Your task to perform on an android device: open app "Microsoft Excel" (install if not already installed) Image 0: 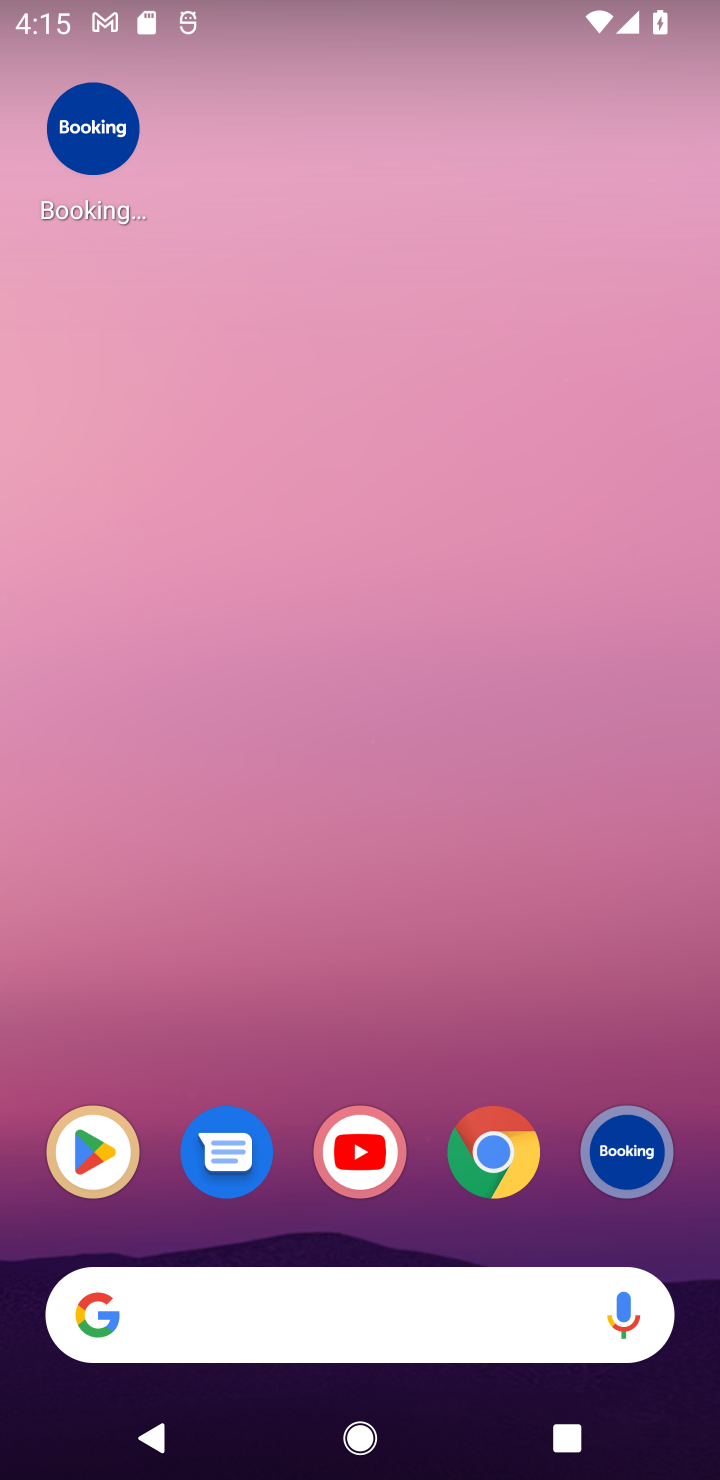
Step 0: click (83, 1143)
Your task to perform on an android device: open app "Microsoft Excel" (install if not already installed) Image 1: 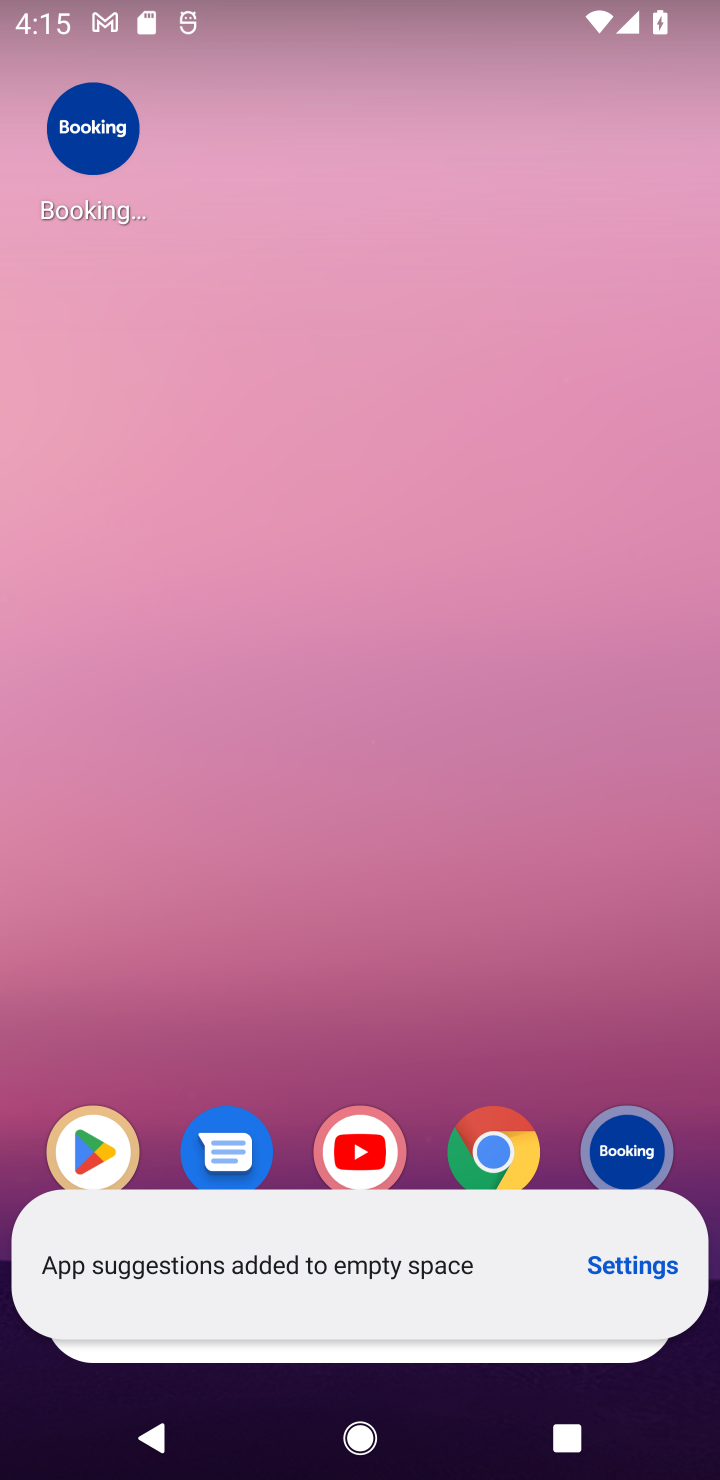
Step 1: click (85, 1135)
Your task to perform on an android device: open app "Microsoft Excel" (install if not already installed) Image 2: 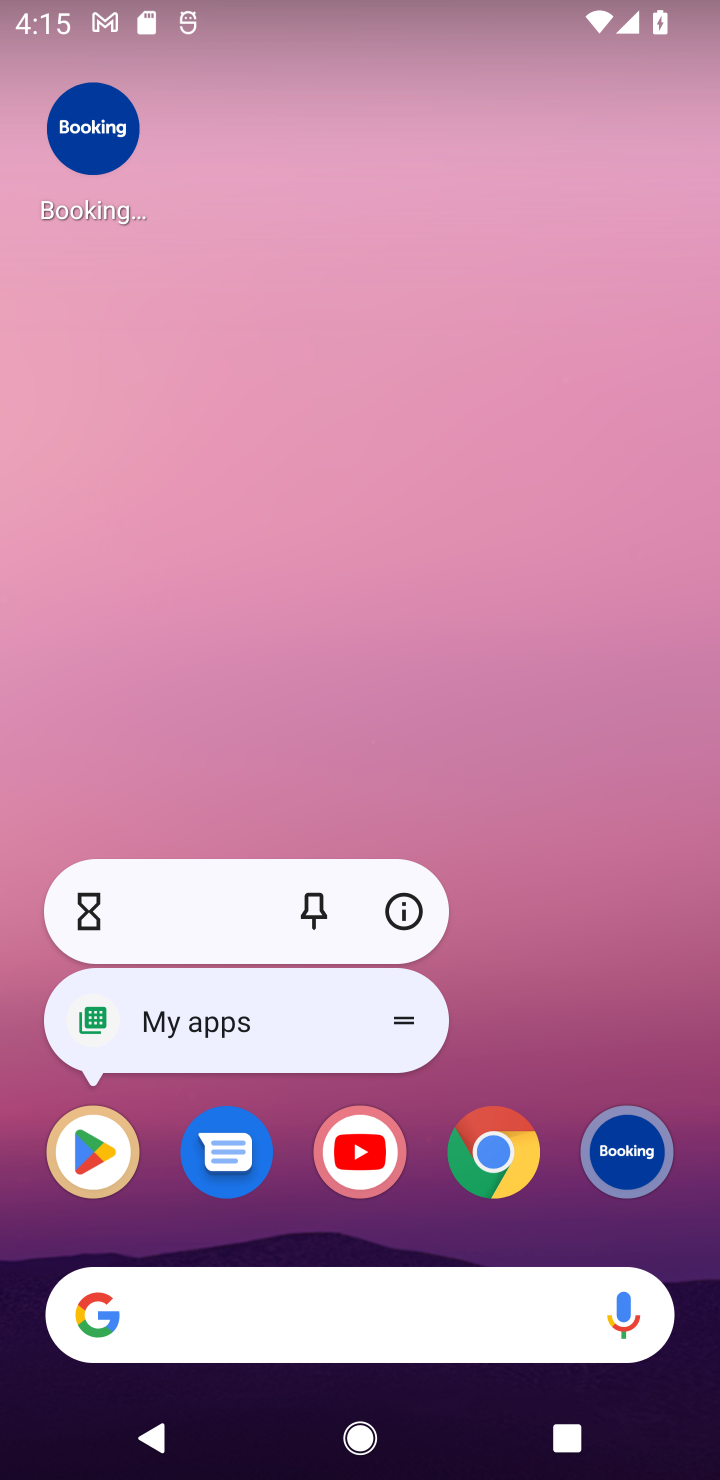
Step 2: click (105, 1195)
Your task to perform on an android device: open app "Microsoft Excel" (install if not already installed) Image 3: 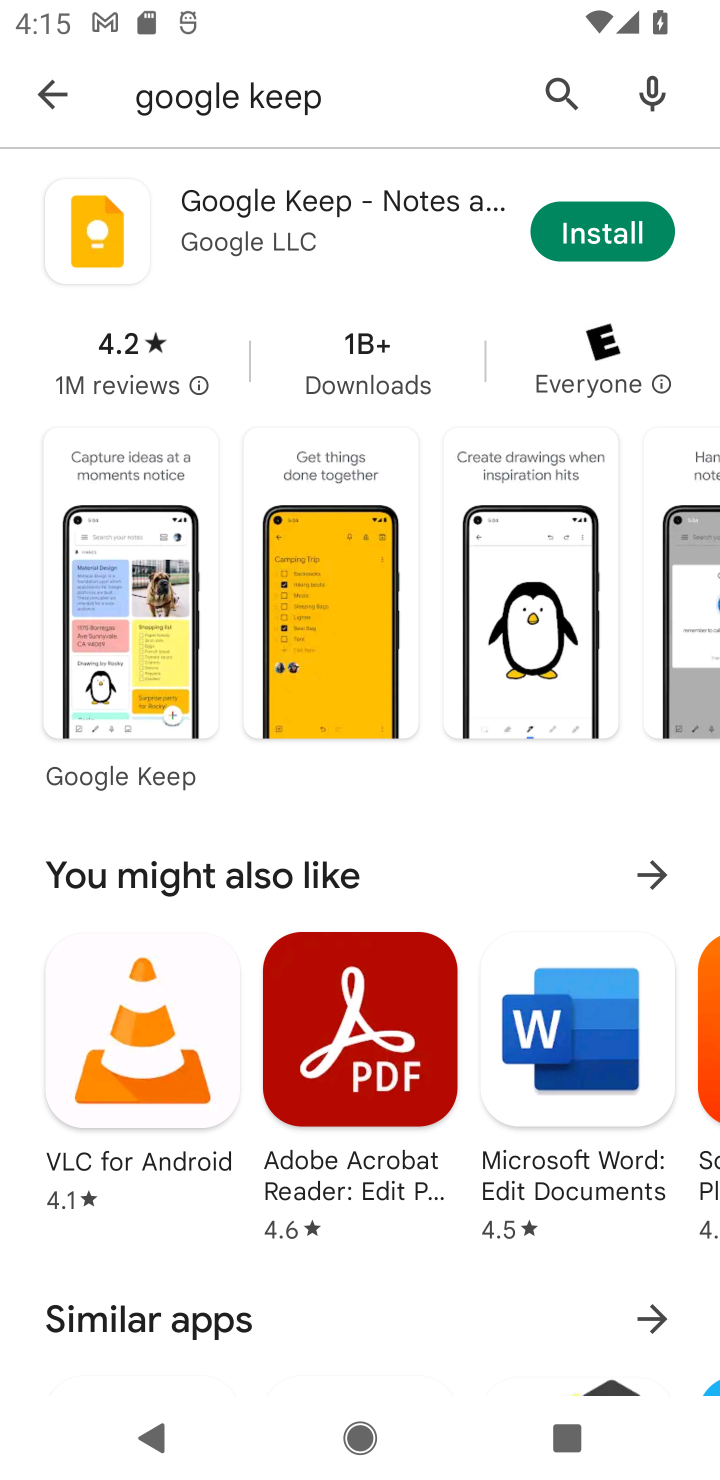
Step 3: click (41, 94)
Your task to perform on an android device: open app "Microsoft Excel" (install if not already installed) Image 4: 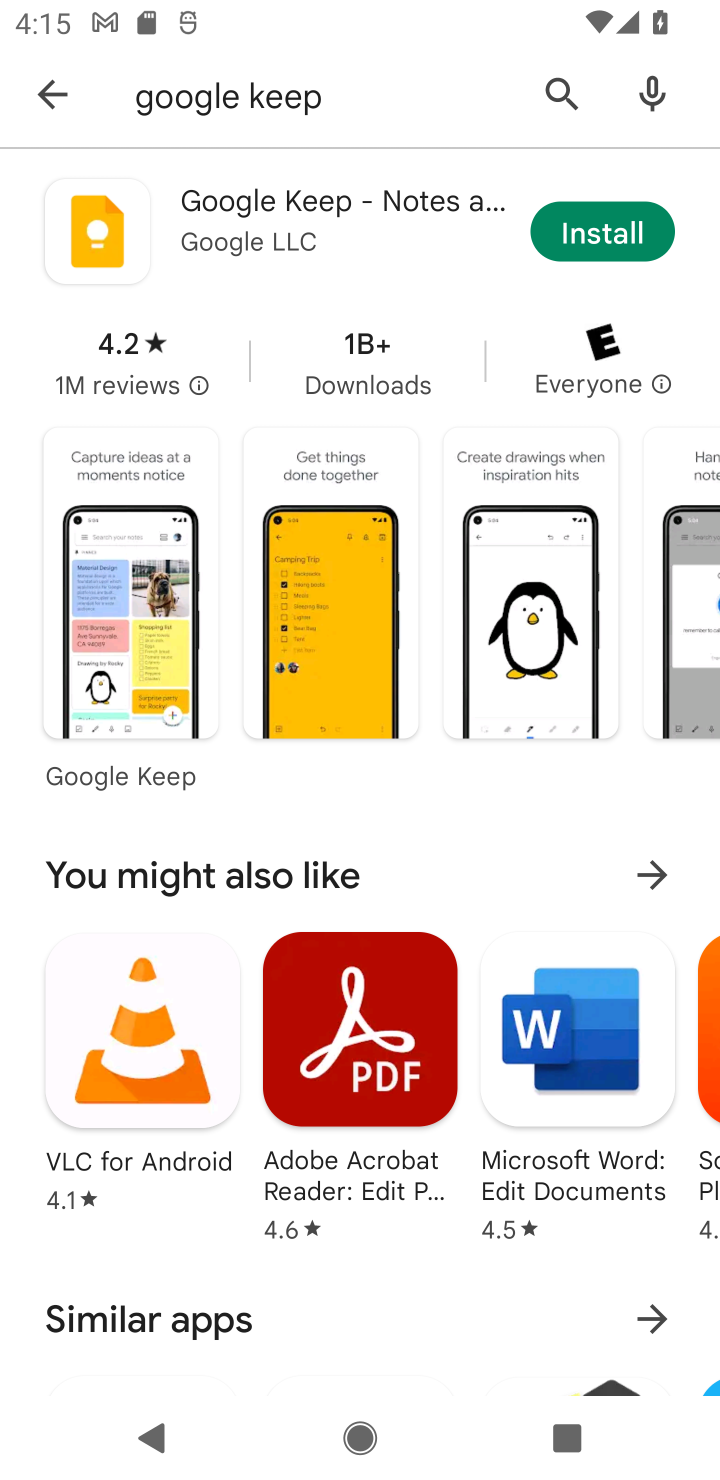
Step 4: click (42, 87)
Your task to perform on an android device: open app "Microsoft Excel" (install if not already installed) Image 5: 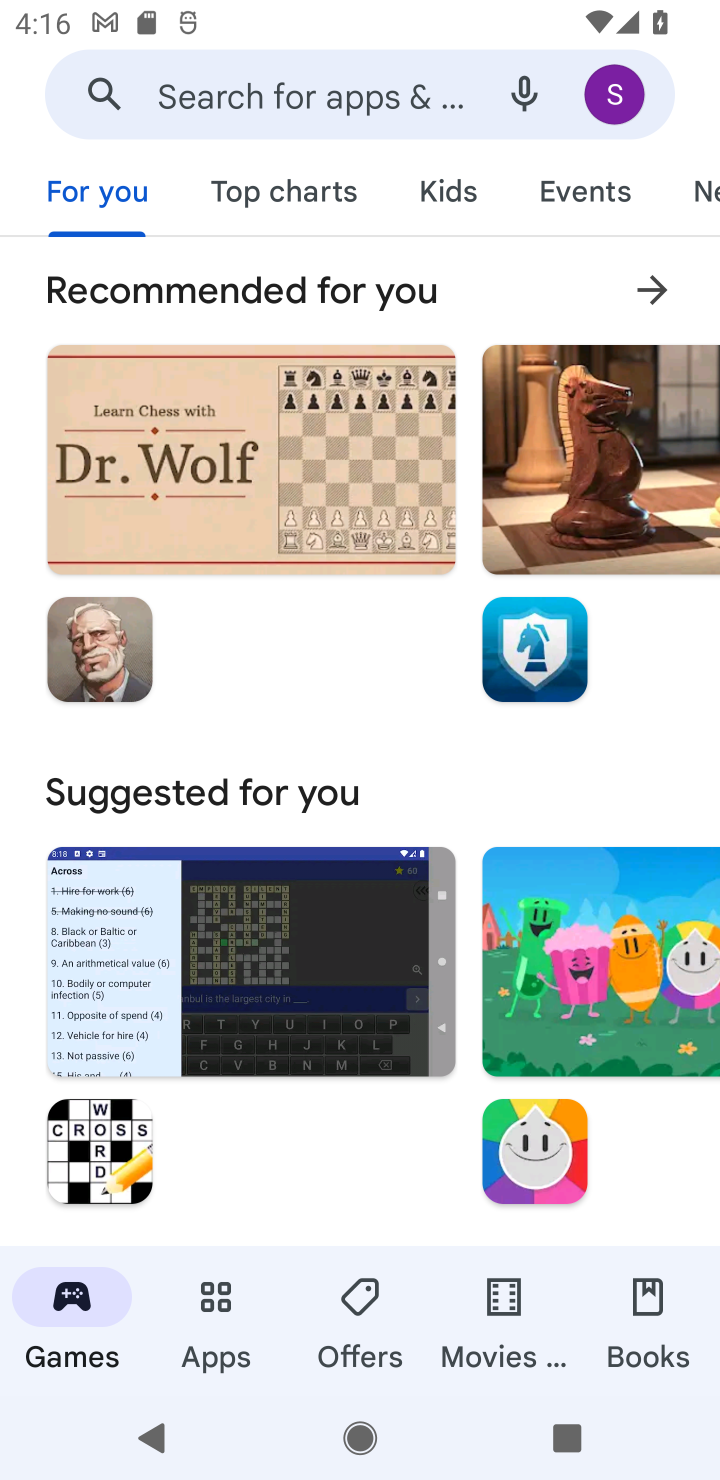
Step 5: click (214, 79)
Your task to perform on an android device: open app "Microsoft Excel" (install if not already installed) Image 6: 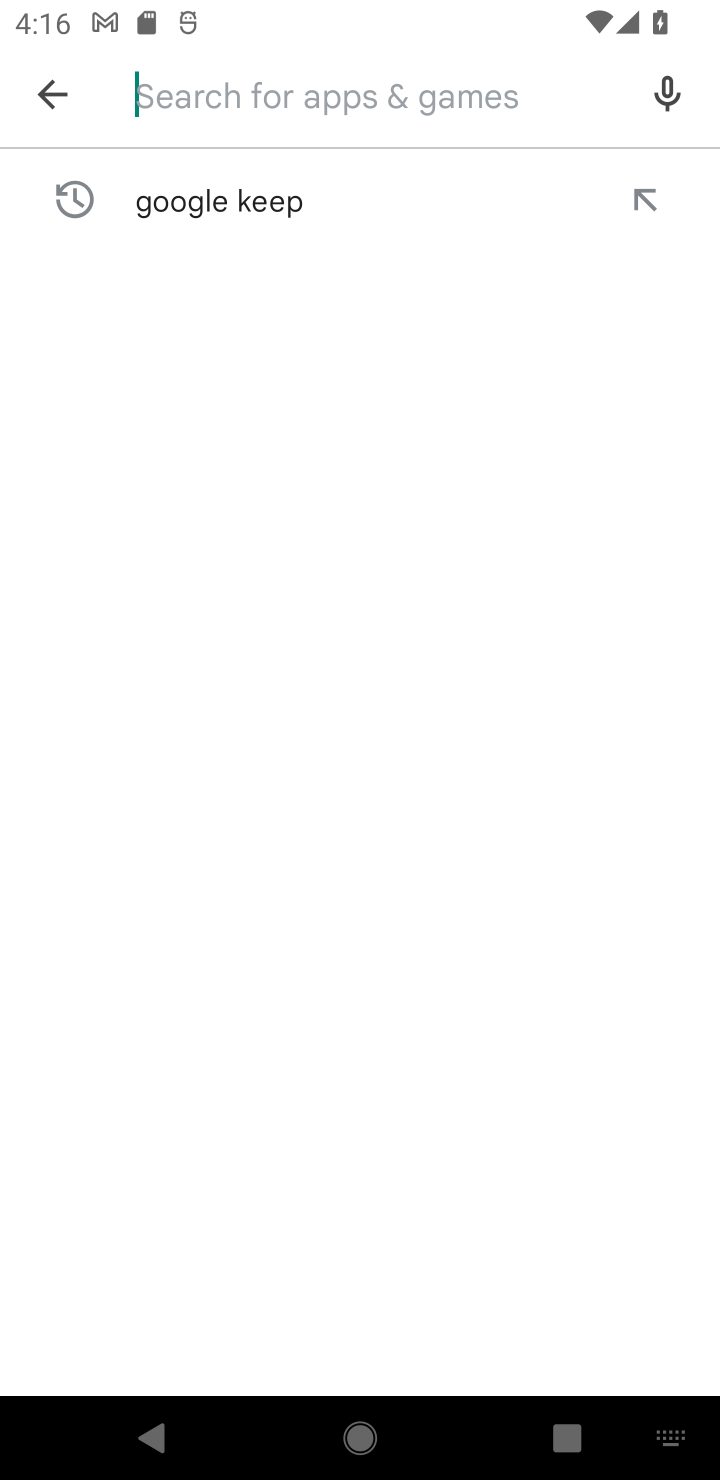
Step 6: type "Microsoft Excel"
Your task to perform on an android device: open app "Microsoft Excel" (install if not already installed) Image 7: 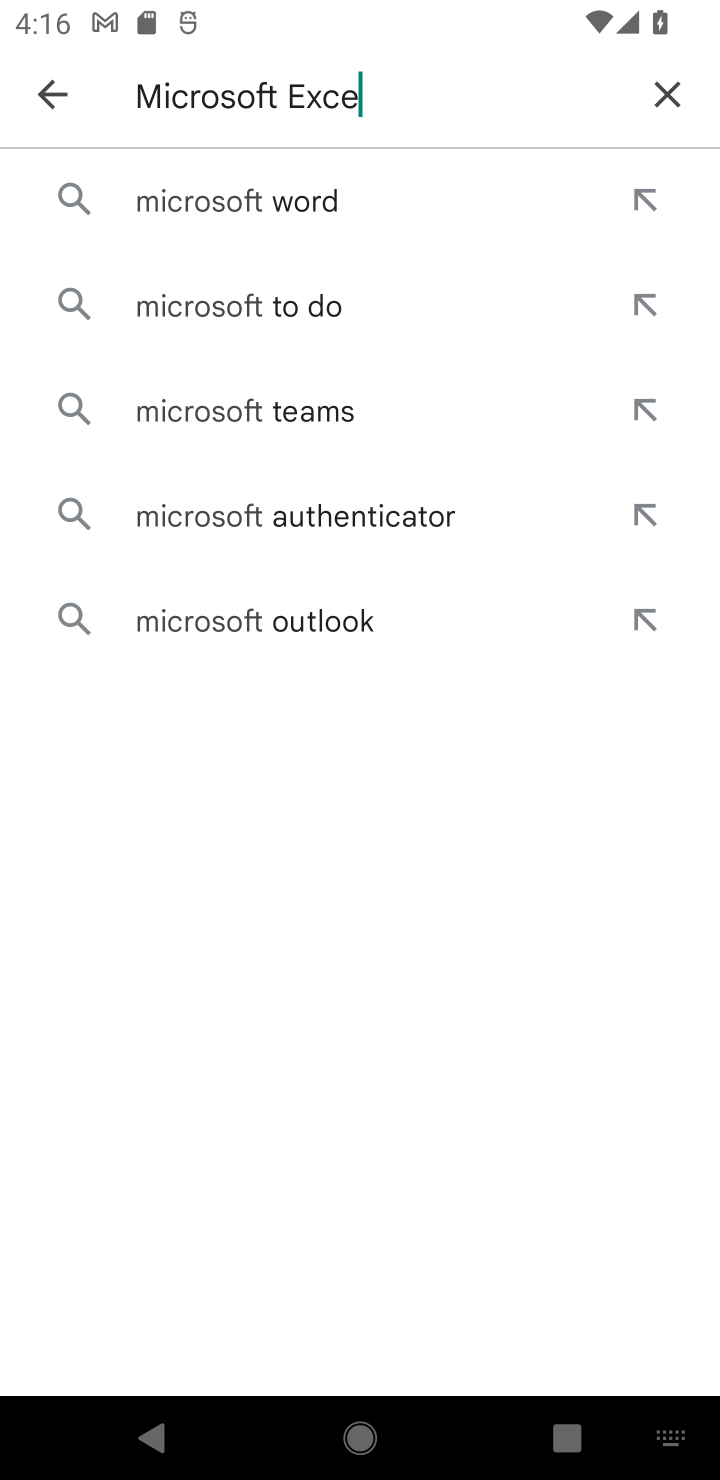
Step 7: type ""
Your task to perform on an android device: open app "Microsoft Excel" (install if not already installed) Image 8: 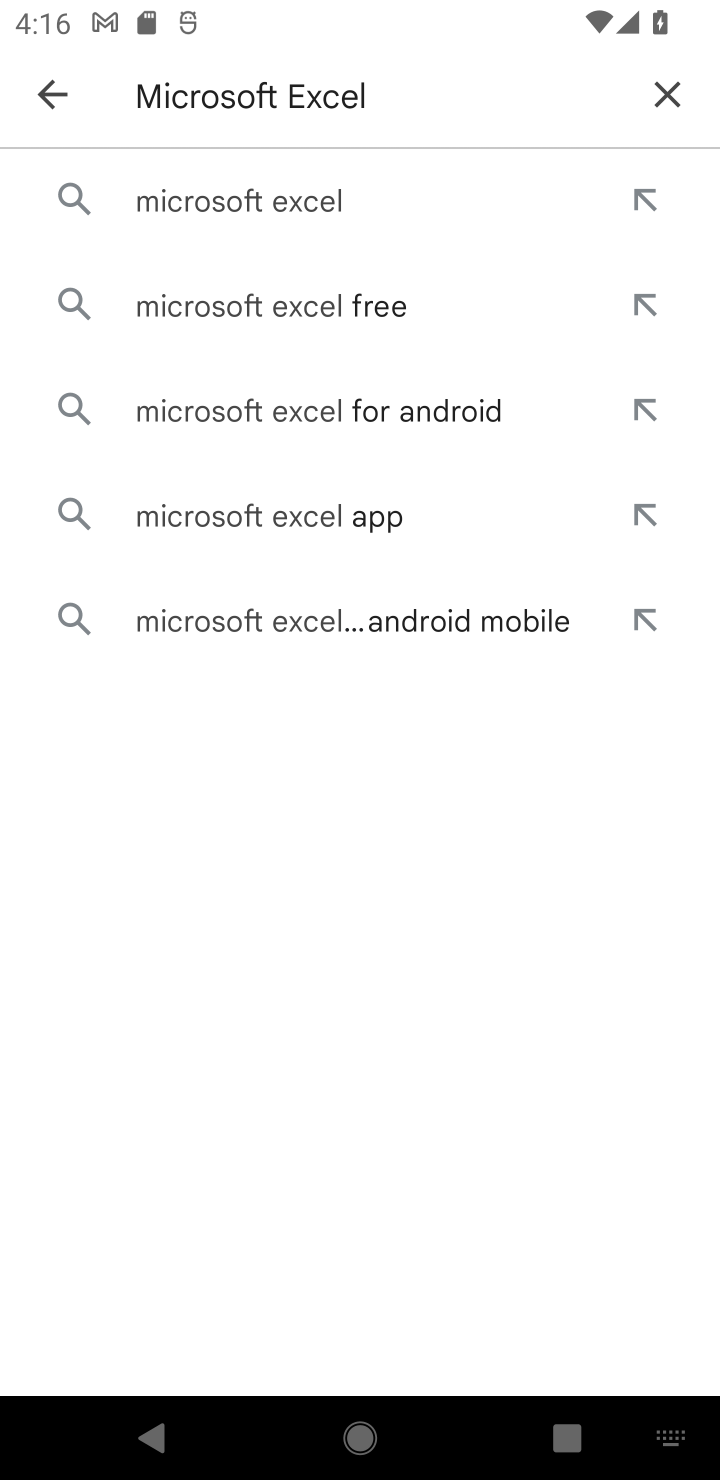
Step 8: click (205, 190)
Your task to perform on an android device: open app "Microsoft Excel" (install if not already installed) Image 9: 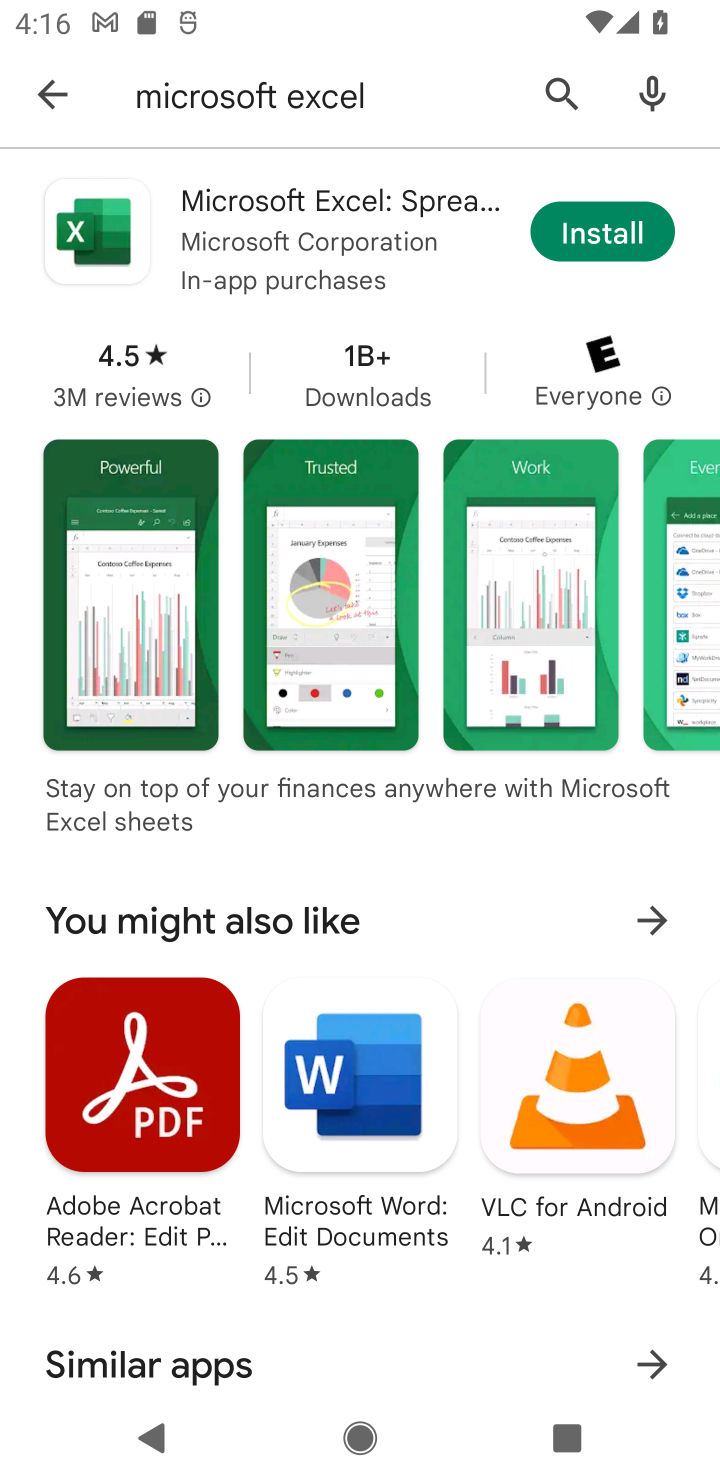
Step 9: click (651, 232)
Your task to perform on an android device: open app "Microsoft Excel" (install if not already installed) Image 10: 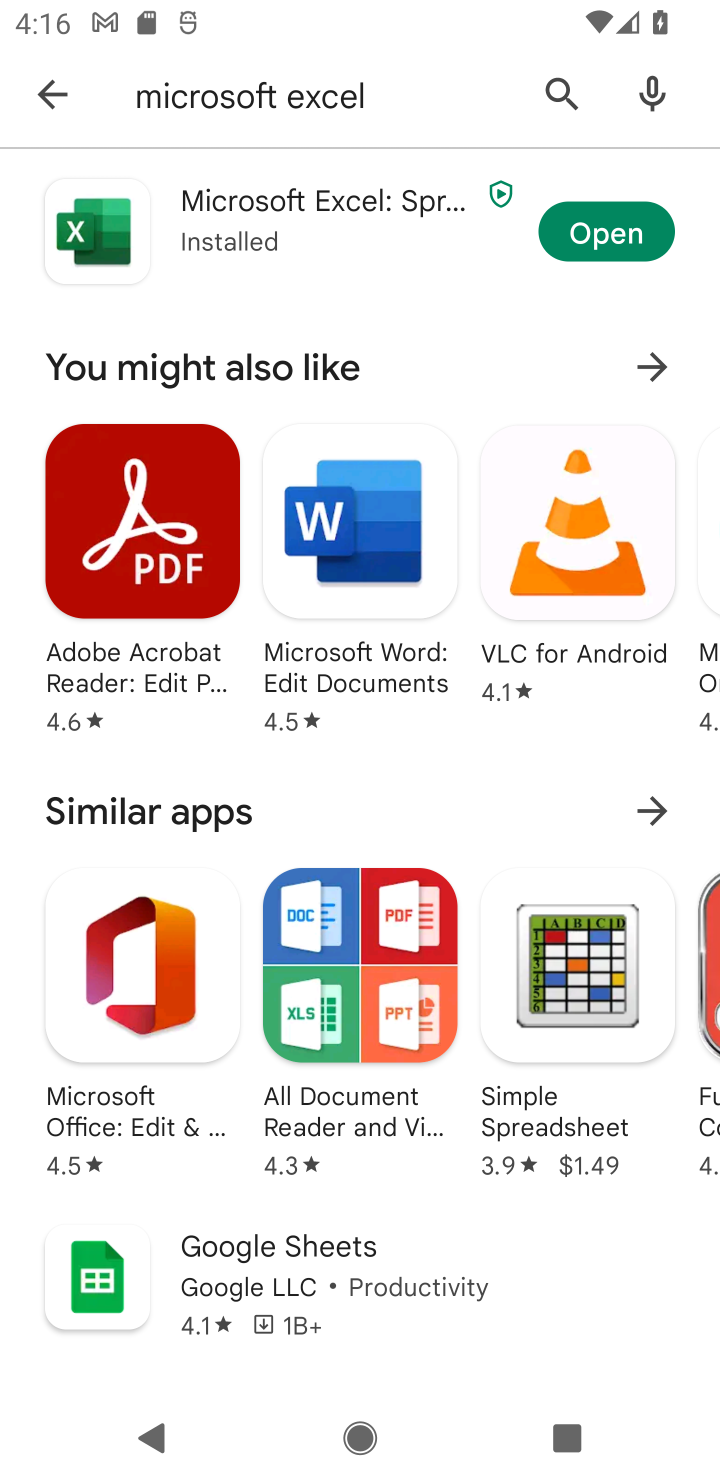
Step 10: click (651, 232)
Your task to perform on an android device: open app "Microsoft Excel" (install if not already installed) Image 11: 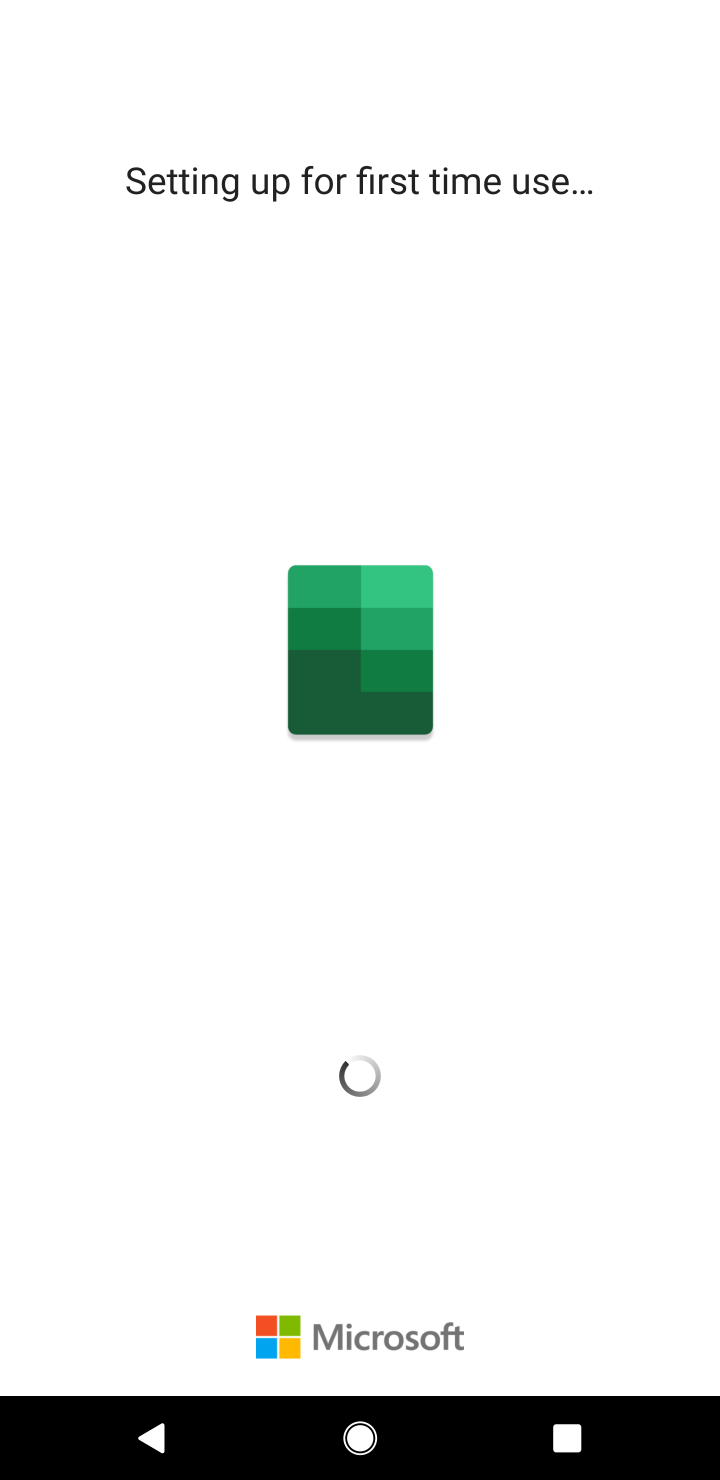
Step 11: task complete